Your task to perform on an android device: find snoozed emails in the gmail app Image 0: 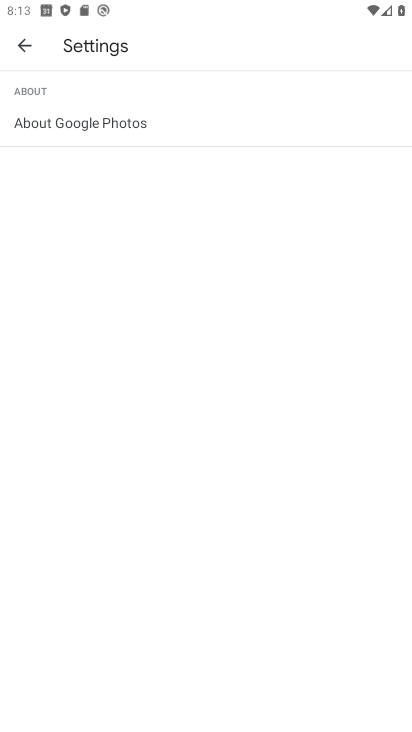
Step 0: press home button
Your task to perform on an android device: find snoozed emails in the gmail app Image 1: 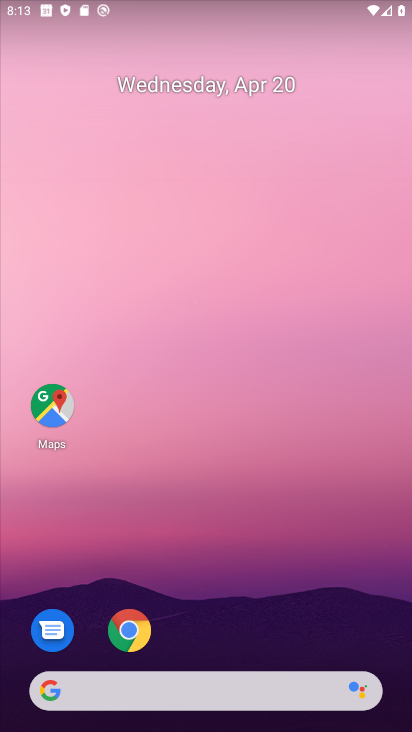
Step 1: drag from (190, 454) to (277, 48)
Your task to perform on an android device: find snoozed emails in the gmail app Image 2: 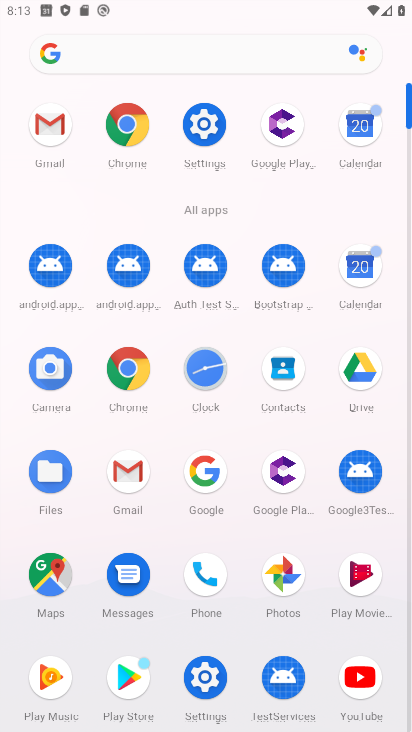
Step 2: click (51, 112)
Your task to perform on an android device: find snoozed emails in the gmail app Image 3: 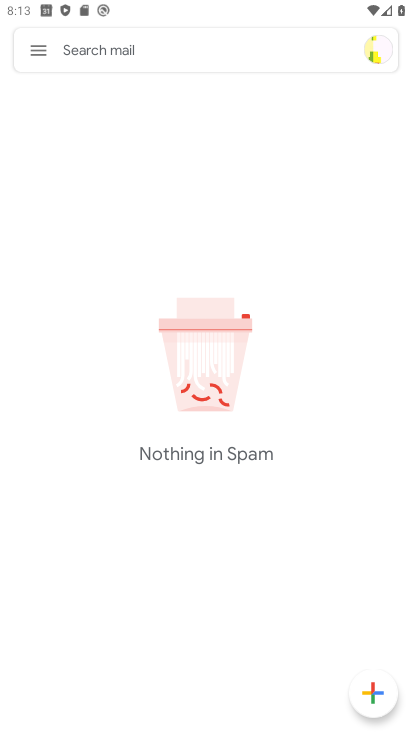
Step 3: click (40, 51)
Your task to perform on an android device: find snoozed emails in the gmail app Image 4: 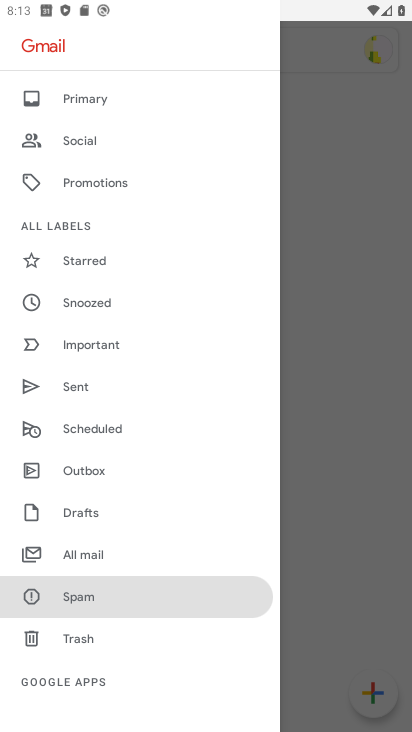
Step 4: click (85, 309)
Your task to perform on an android device: find snoozed emails in the gmail app Image 5: 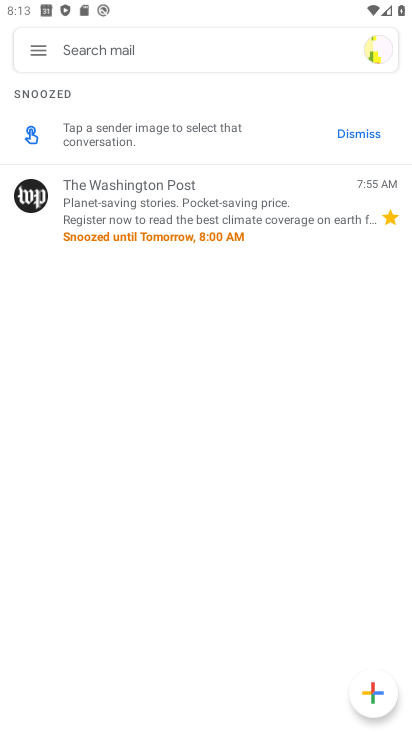
Step 5: task complete